Your task to perform on an android device: Open CNN.com Image 0: 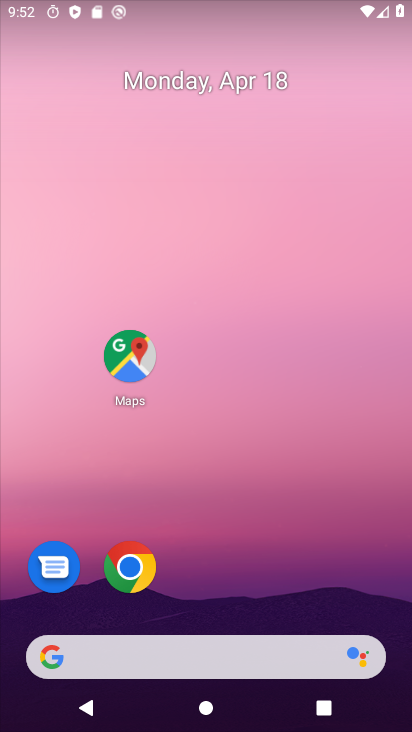
Step 0: click (313, 444)
Your task to perform on an android device: Open CNN.com Image 1: 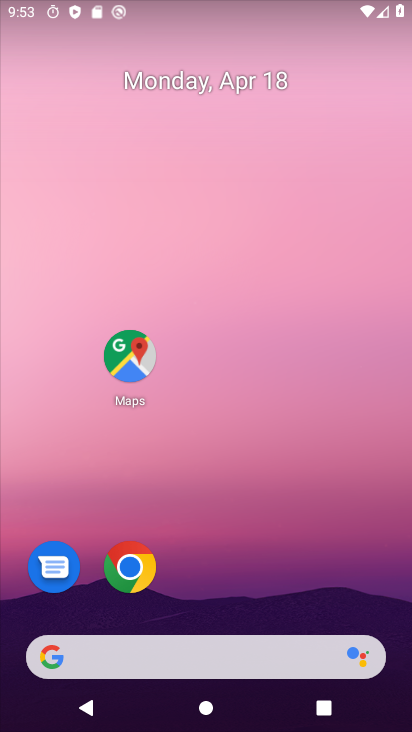
Step 1: drag from (275, 593) to (409, 162)
Your task to perform on an android device: Open CNN.com Image 2: 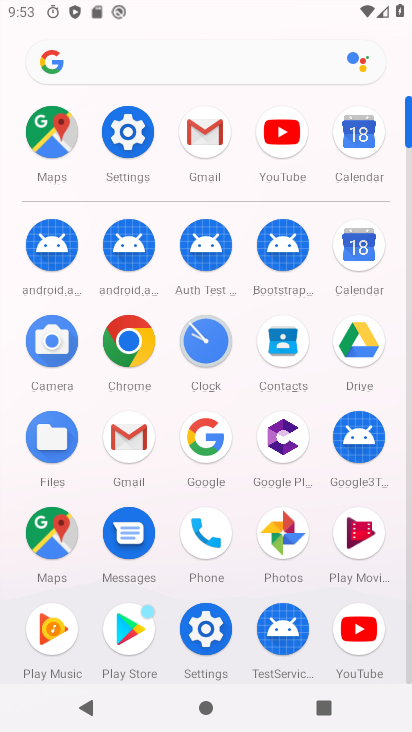
Step 2: click (134, 353)
Your task to perform on an android device: Open CNN.com Image 3: 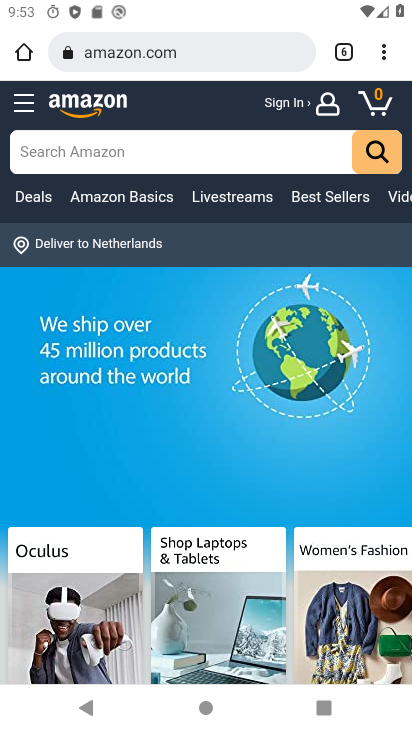
Step 3: click (381, 49)
Your task to perform on an android device: Open CNN.com Image 4: 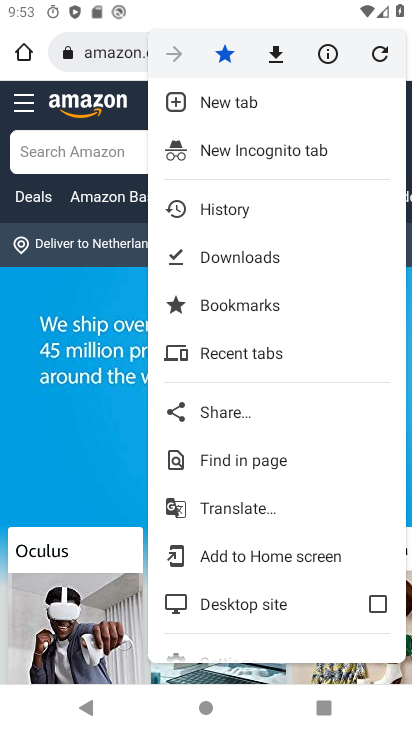
Step 4: click (252, 109)
Your task to perform on an android device: Open CNN.com Image 5: 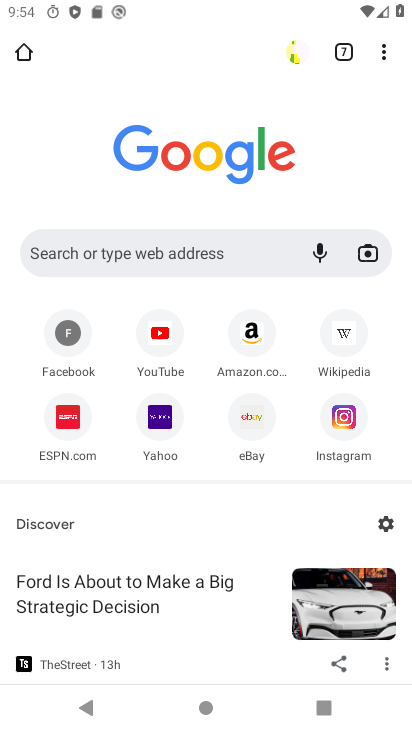
Step 5: click (129, 250)
Your task to perform on an android device: Open CNN.com Image 6: 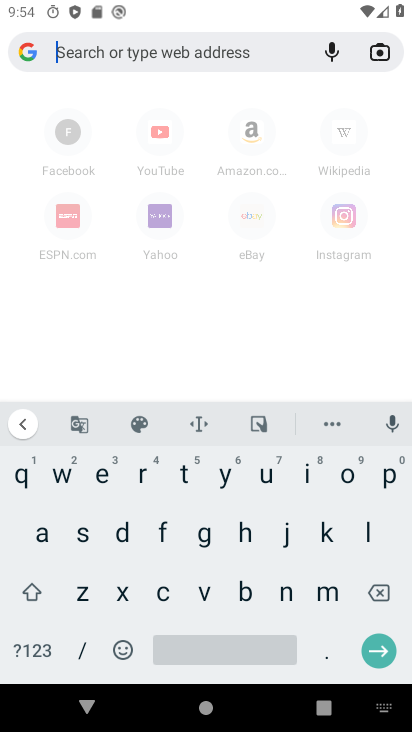
Step 6: click (160, 593)
Your task to perform on an android device: Open CNN.com Image 7: 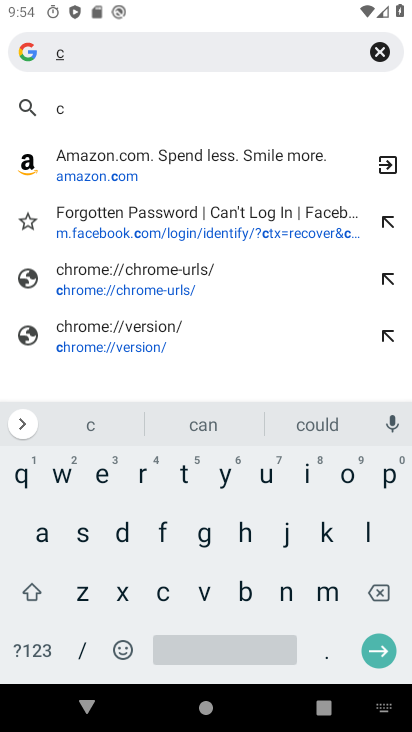
Step 7: click (287, 597)
Your task to perform on an android device: Open CNN.com Image 8: 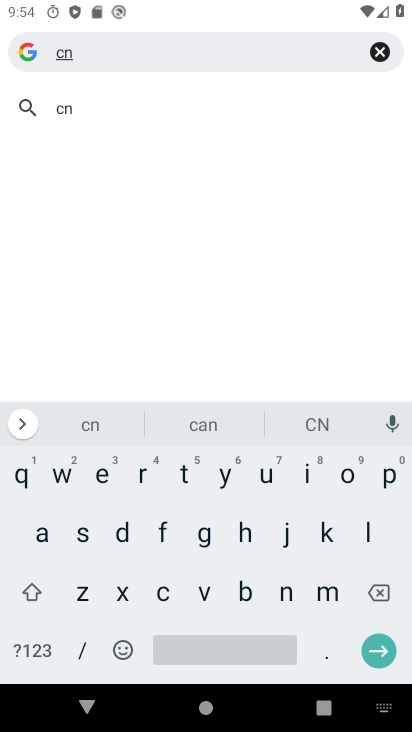
Step 8: click (286, 592)
Your task to perform on an android device: Open CNN.com Image 9: 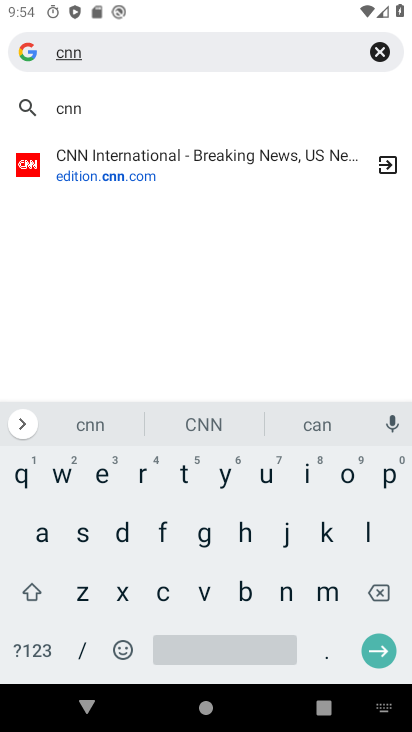
Step 9: click (211, 164)
Your task to perform on an android device: Open CNN.com Image 10: 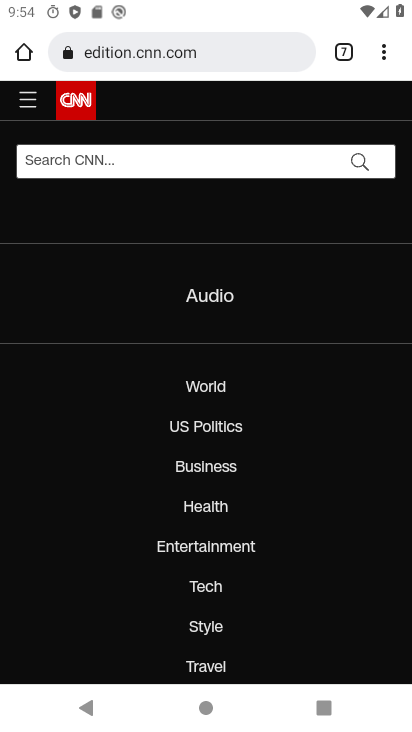
Step 10: task complete